Your task to perform on an android device: Open the stopwatch Image 0: 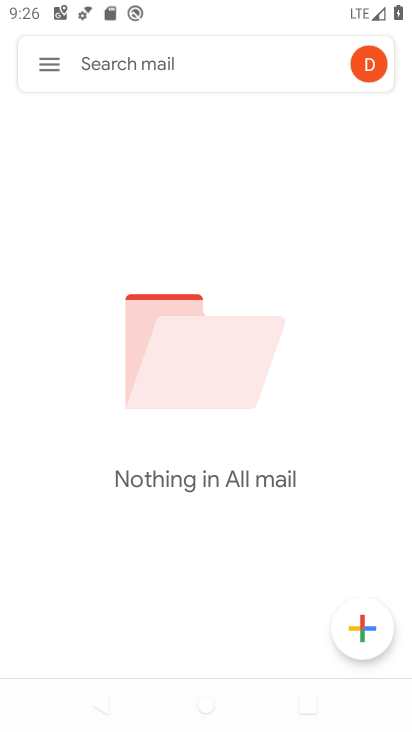
Step 0: press back button
Your task to perform on an android device: Open the stopwatch Image 1: 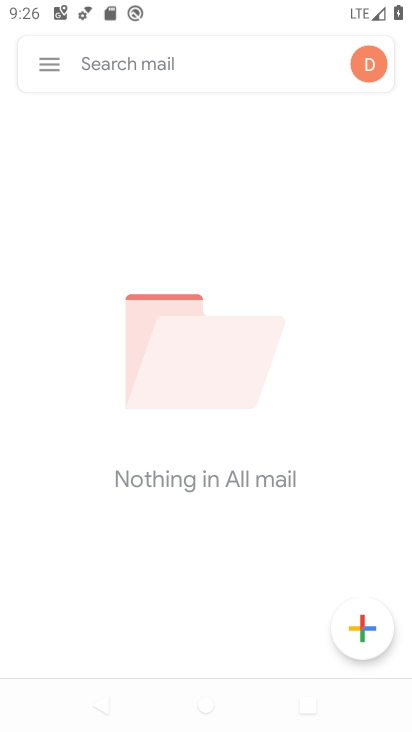
Step 1: press back button
Your task to perform on an android device: Open the stopwatch Image 2: 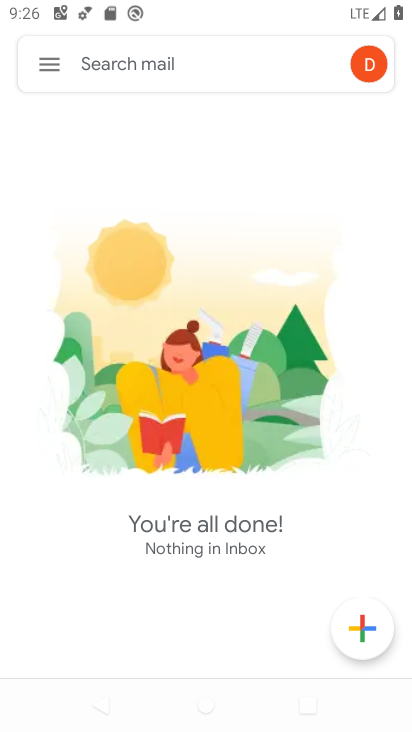
Step 2: press back button
Your task to perform on an android device: Open the stopwatch Image 3: 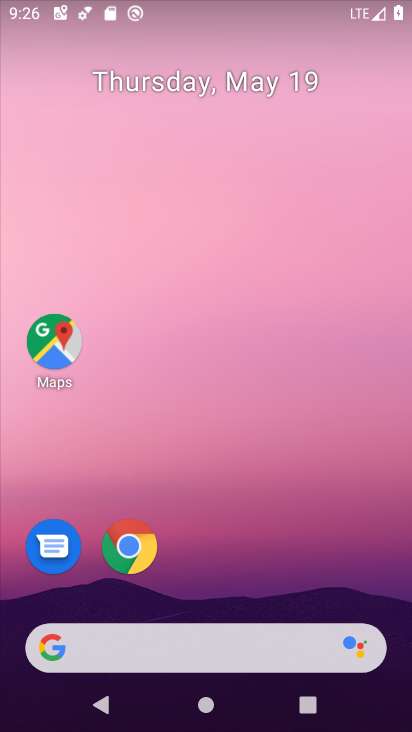
Step 3: press home button
Your task to perform on an android device: Open the stopwatch Image 4: 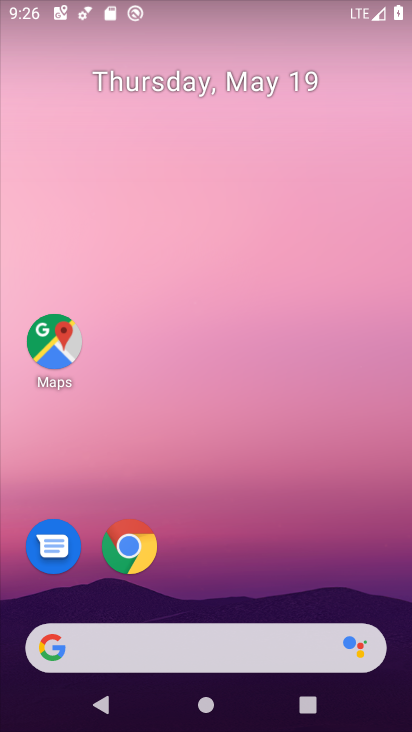
Step 4: drag from (243, 582) to (143, 184)
Your task to perform on an android device: Open the stopwatch Image 5: 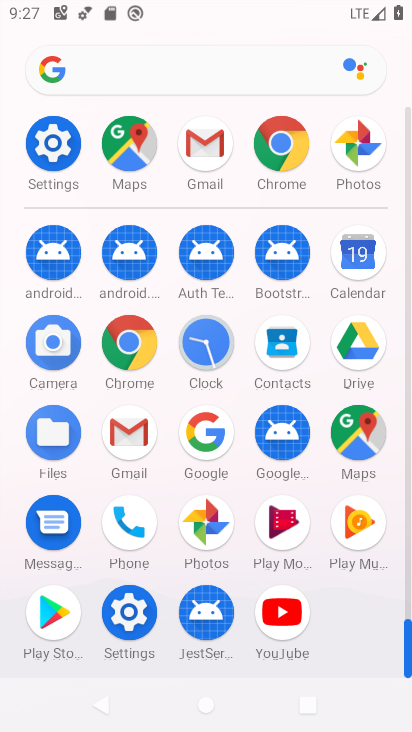
Step 5: click (208, 335)
Your task to perform on an android device: Open the stopwatch Image 6: 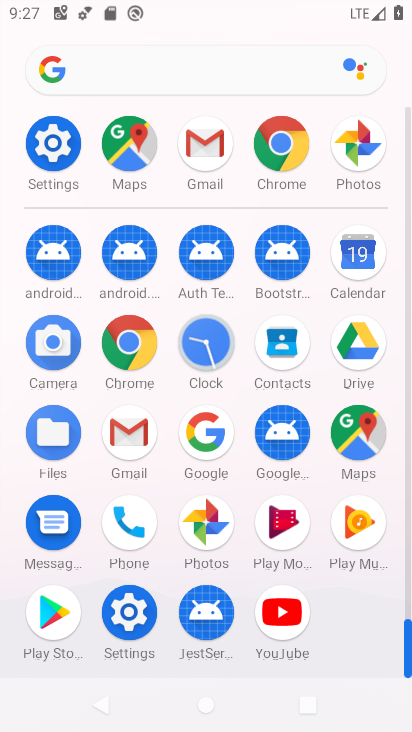
Step 6: click (208, 335)
Your task to perform on an android device: Open the stopwatch Image 7: 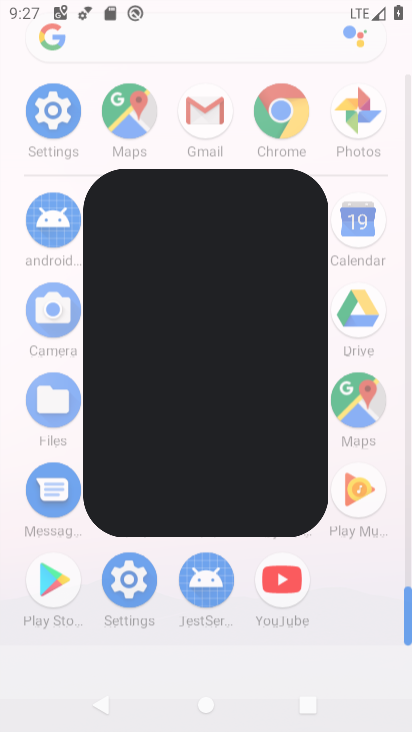
Step 7: click (208, 335)
Your task to perform on an android device: Open the stopwatch Image 8: 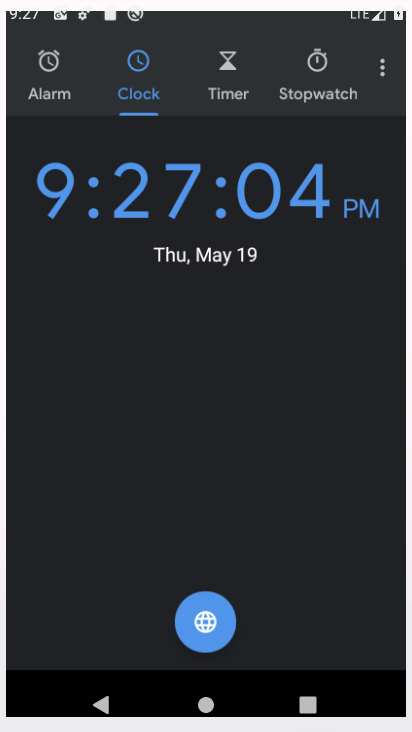
Step 8: click (208, 335)
Your task to perform on an android device: Open the stopwatch Image 9: 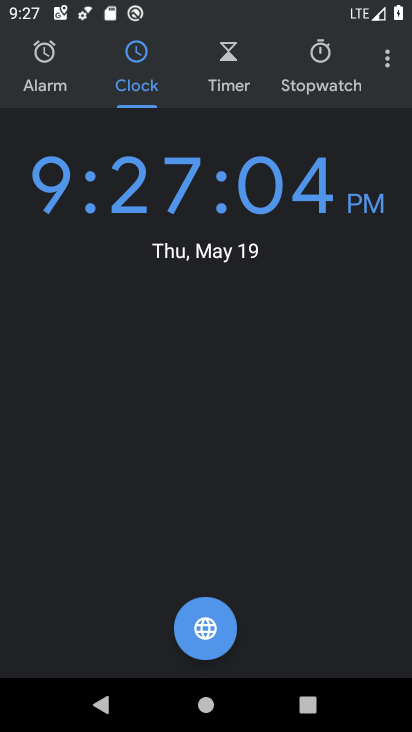
Step 9: click (208, 335)
Your task to perform on an android device: Open the stopwatch Image 10: 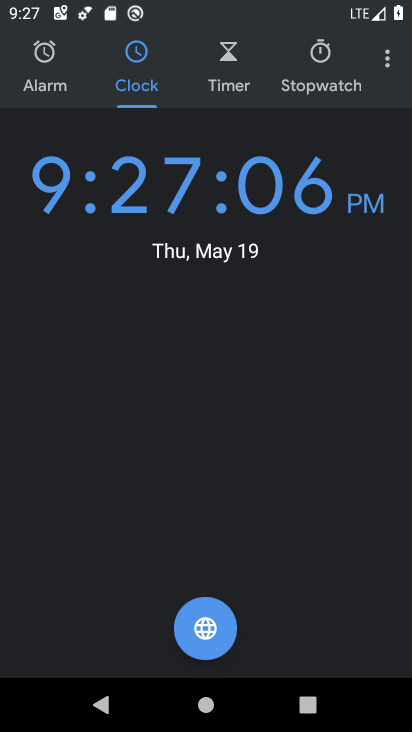
Step 10: click (297, 50)
Your task to perform on an android device: Open the stopwatch Image 11: 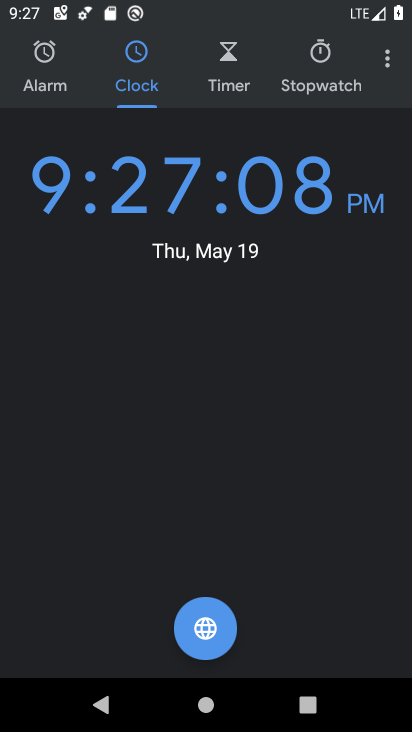
Step 11: click (314, 52)
Your task to perform on an android device: Open the stopwatch Image 12: 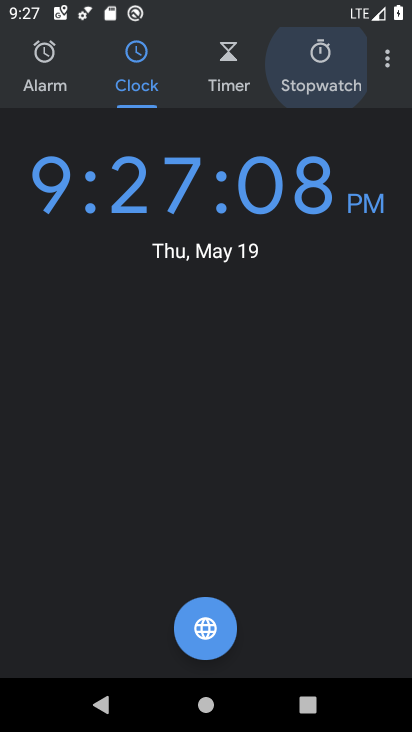
Step 12: click (317, 71)
Your task to perform on an android device: Open the stopwatch Image 13: 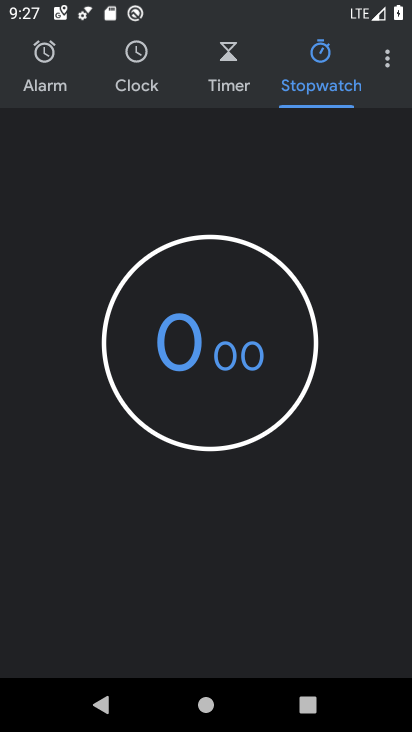
Step 13: click (318, 72)
Your task to perform on an android device: Open the stopwatch Image 14: 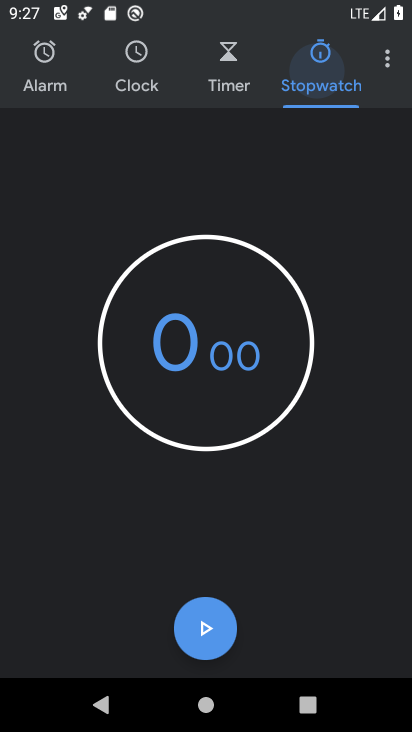
Step 14: click (318, 72)
Your task to perform on an android device: Open the stopwatch Image 15: 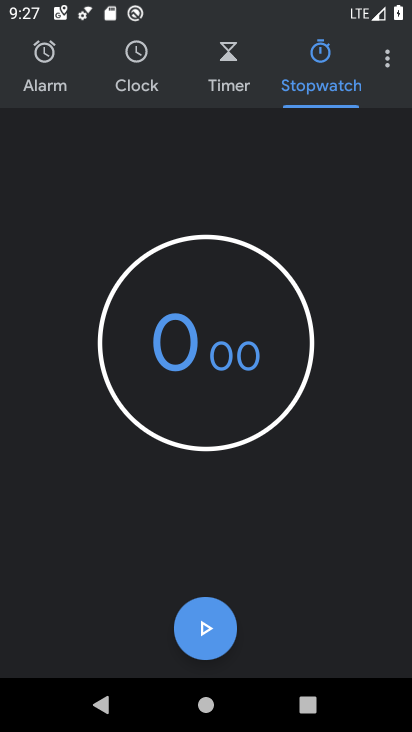
Step 15: click (194, 631)
Your task to perform on an android device: Open the stopwatch Image 16: 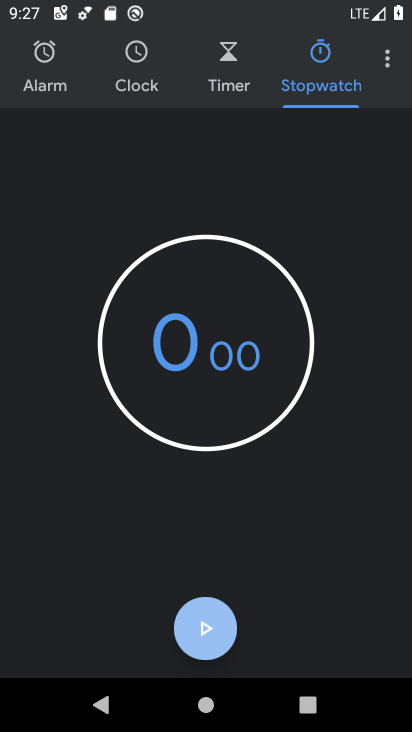
Step 16: click (193, 629)
Your task to perform on an android device: Open the stopwatch Image 17: 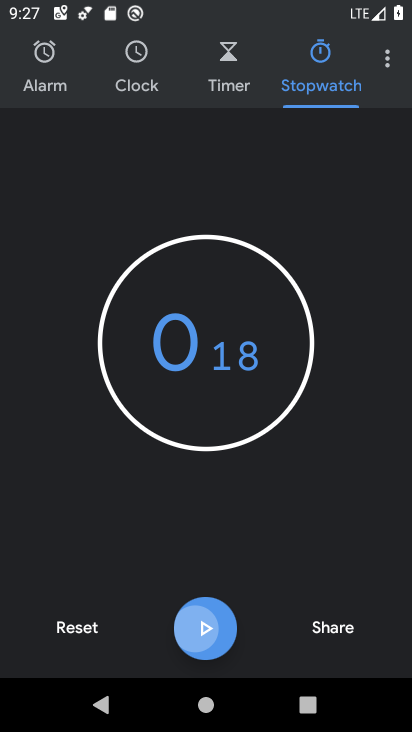
Step 17: click (214, 626)
Your task to perform on an android device: Open the stopwatch Image 18: 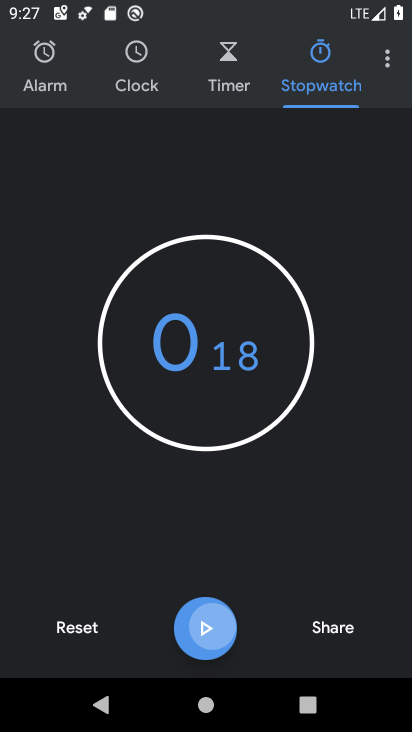
Step 18: click (197, 610)
Your task to perform on an android device: Open the stopwatch Image 19: 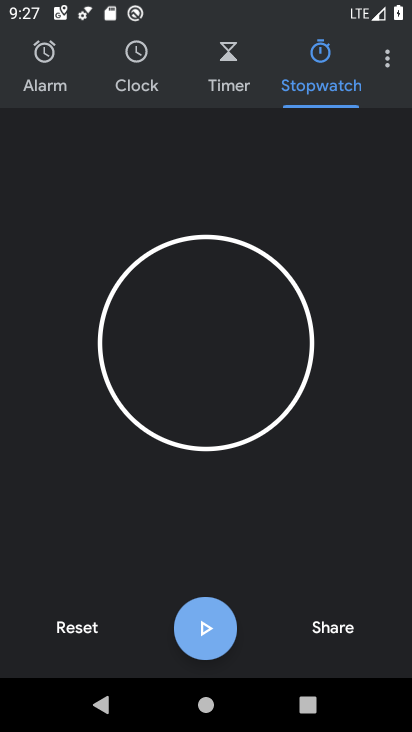
Step 19: click (202, 615)
Your task to perform on an android device: Open the stopwatch Image 20: 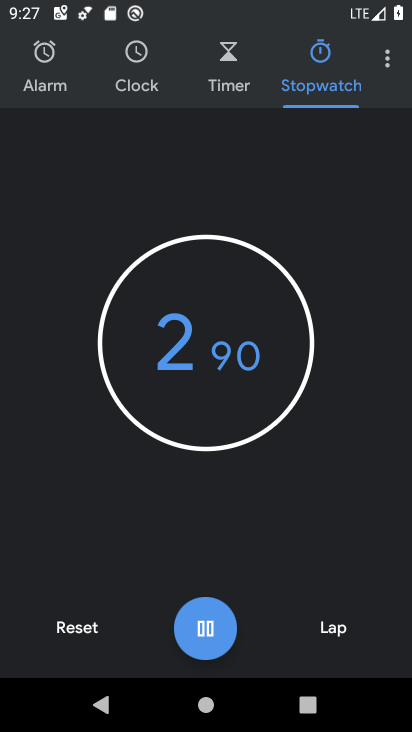
Step 20: click (212, 623)
Your task to perform on an android device: Open the stopwatch Image 21: 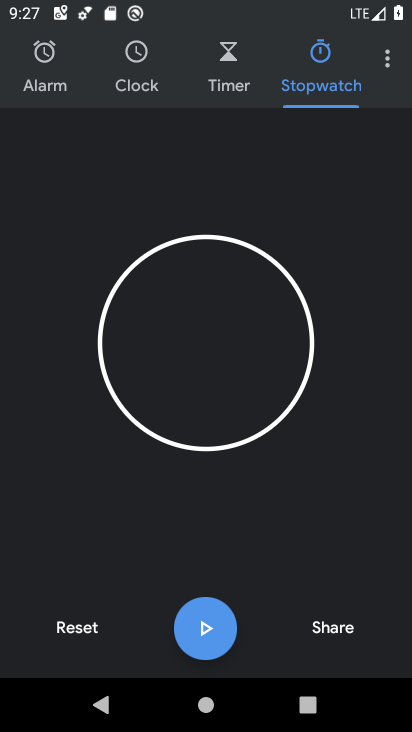
Step 21: task complete